Your task to perform on an android device: install app "Messages" Image 0: 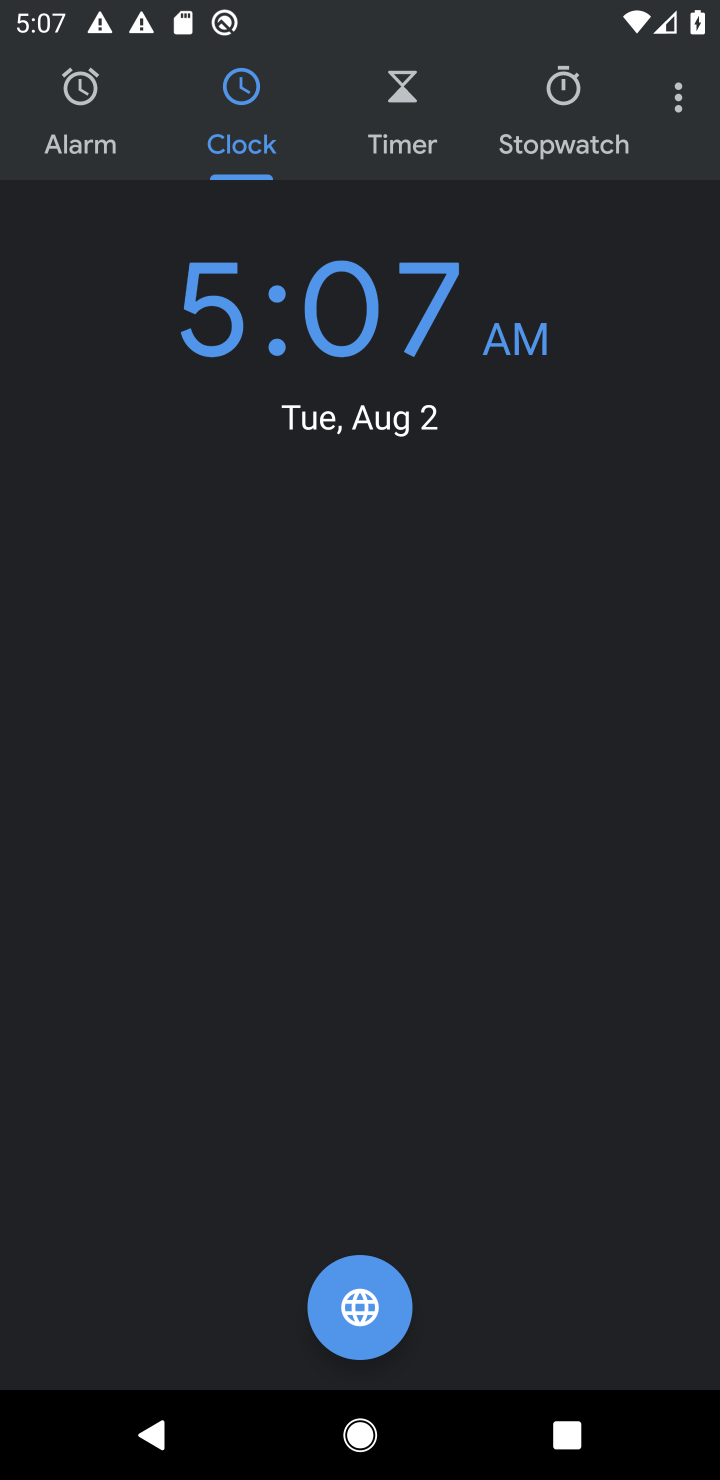
Step 0: press home button
Your task to perform on an android device: install app "Messages" Image 1: 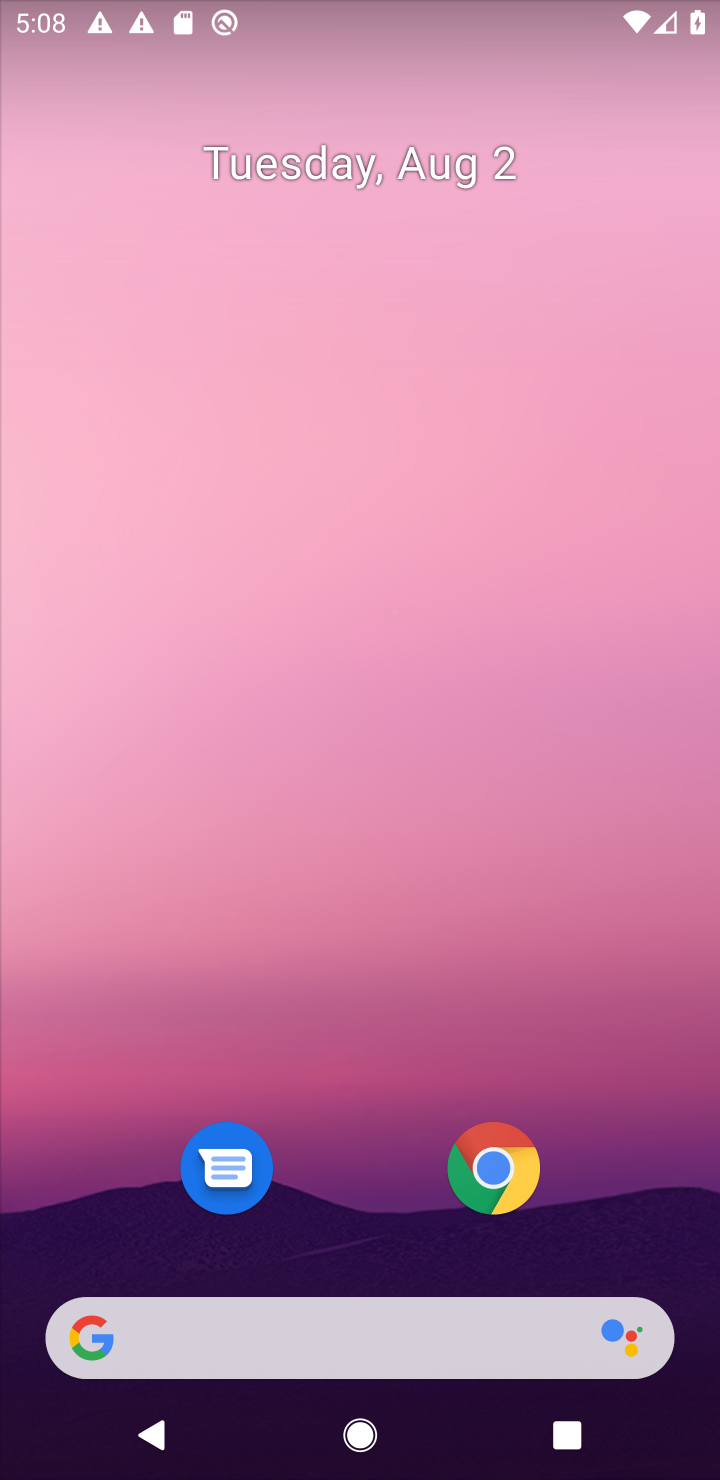
Step 1: drag from (334, 1172) to (215, 52)
Your task to perform on an android device: install app "Messages" Image 2: 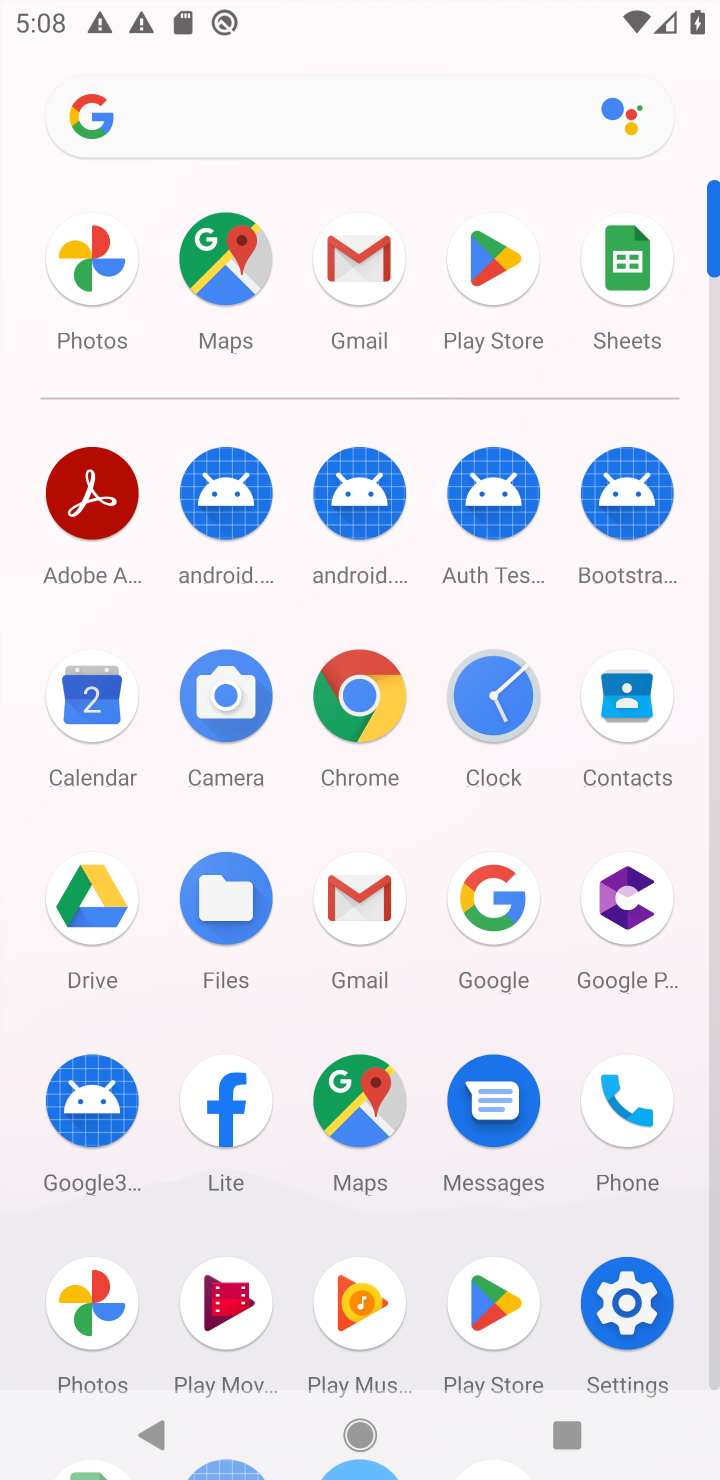
Step 2: click (500, 341)
Your task to perform on an android device: install app "Messages" Image 3: 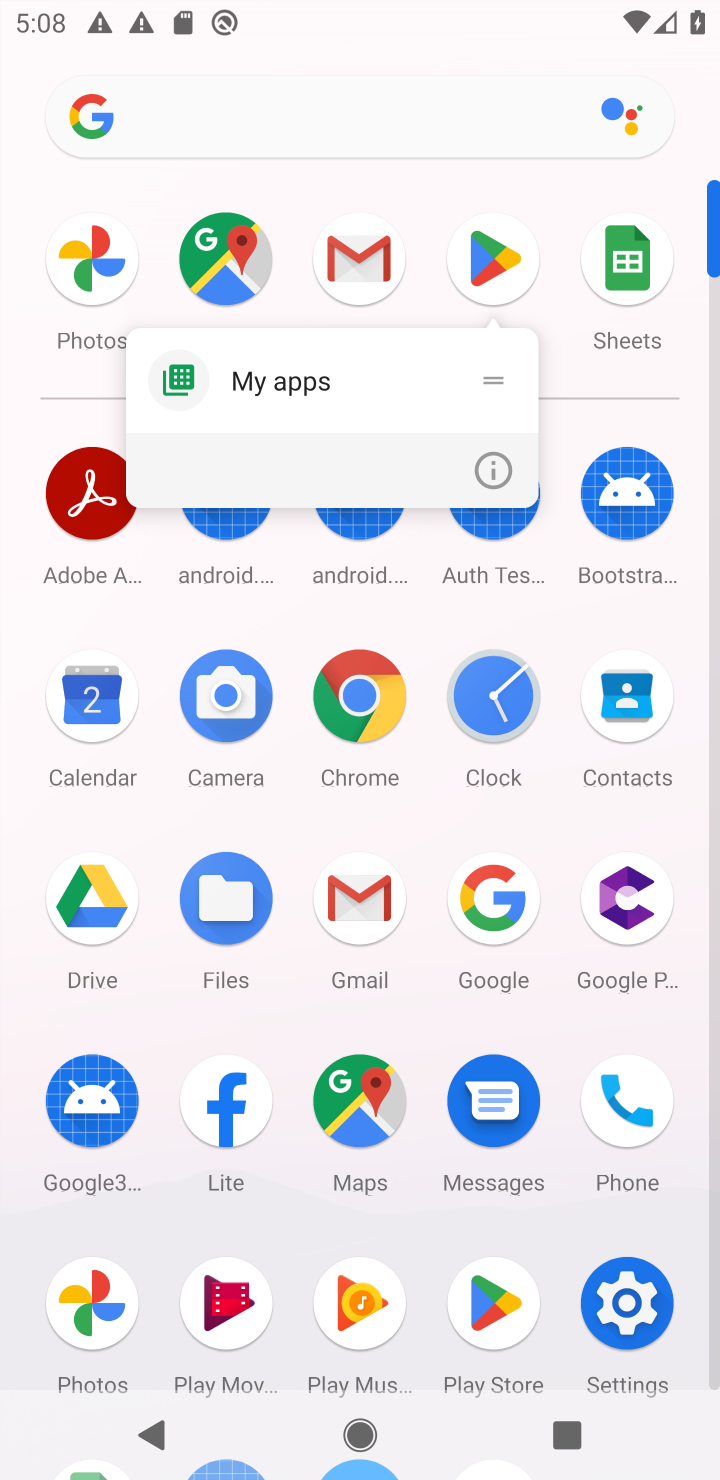
Step 3: click (495, 251)
Your task to perform on an android device: install app "Messages" Image 4: 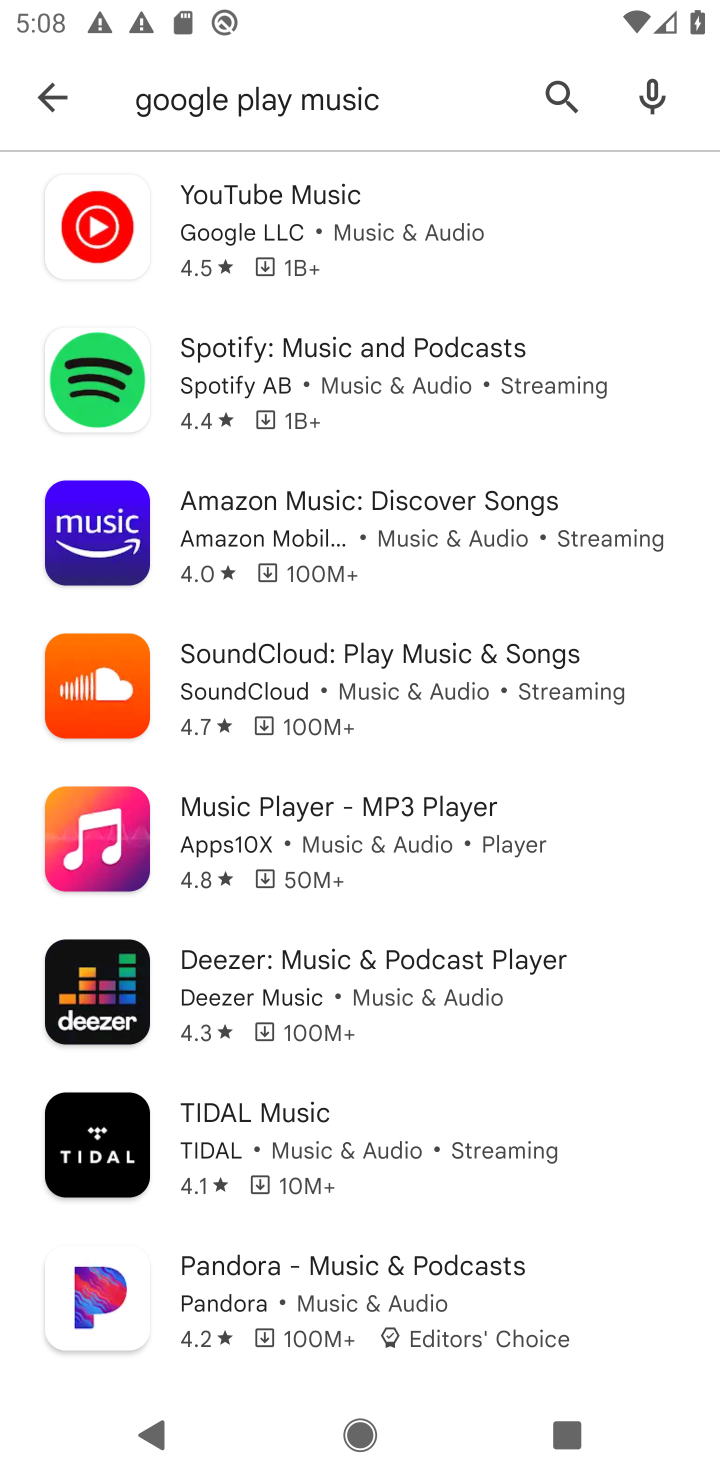
Step 4: click (336, 95)
Your task to perform on an android device: install app "Messages" Image 5: 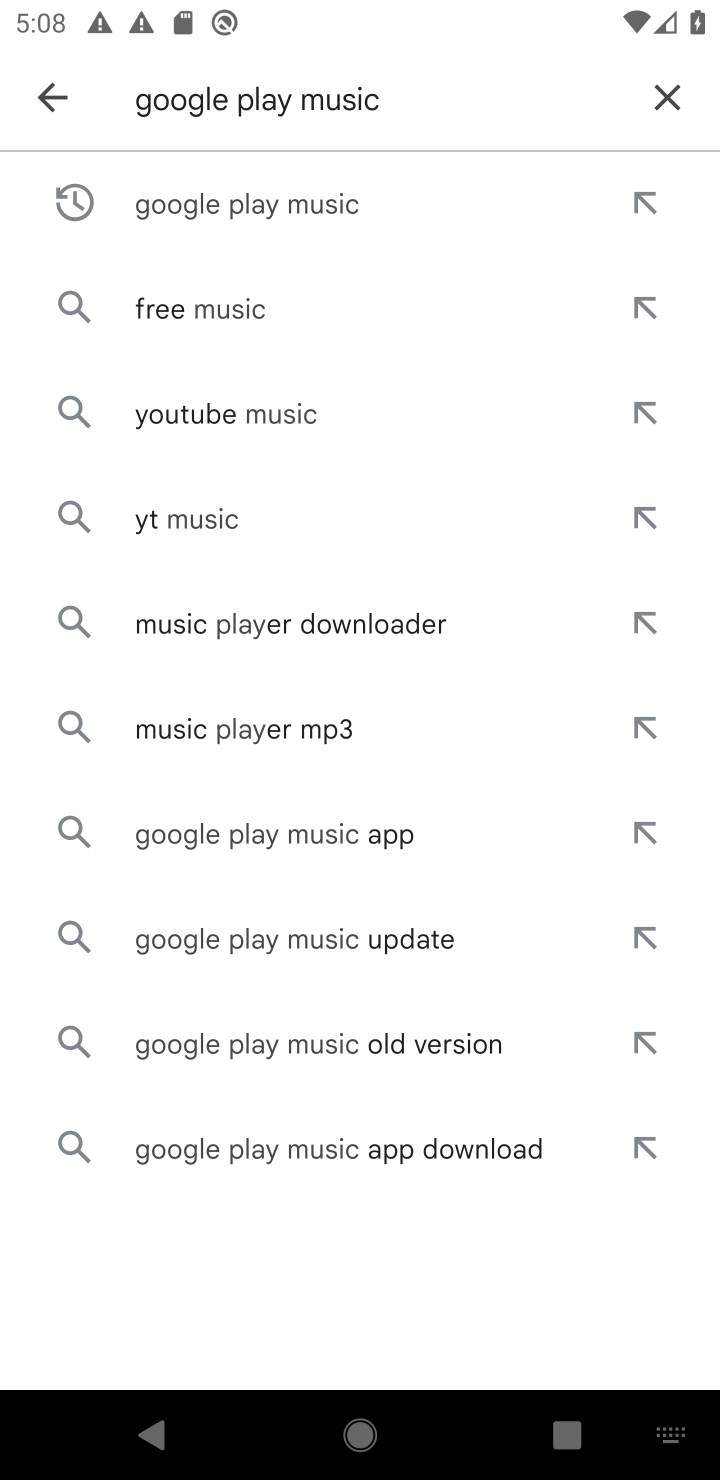
Step 5: click (642, 82)
Your task to perform on an android device: install app "Messages" Image 6: 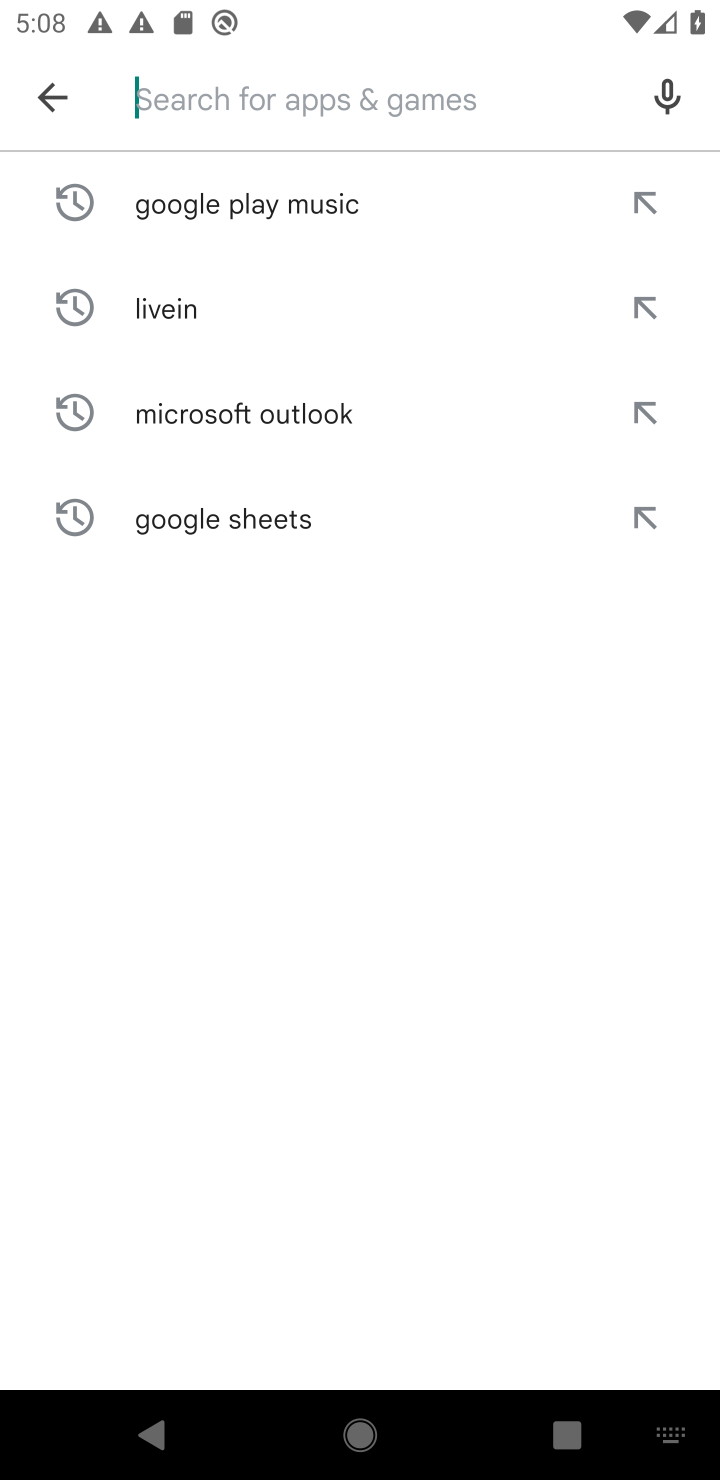
Step 6: type "messages"
Your task to perform on an android device: install app "Messages" Image 7: 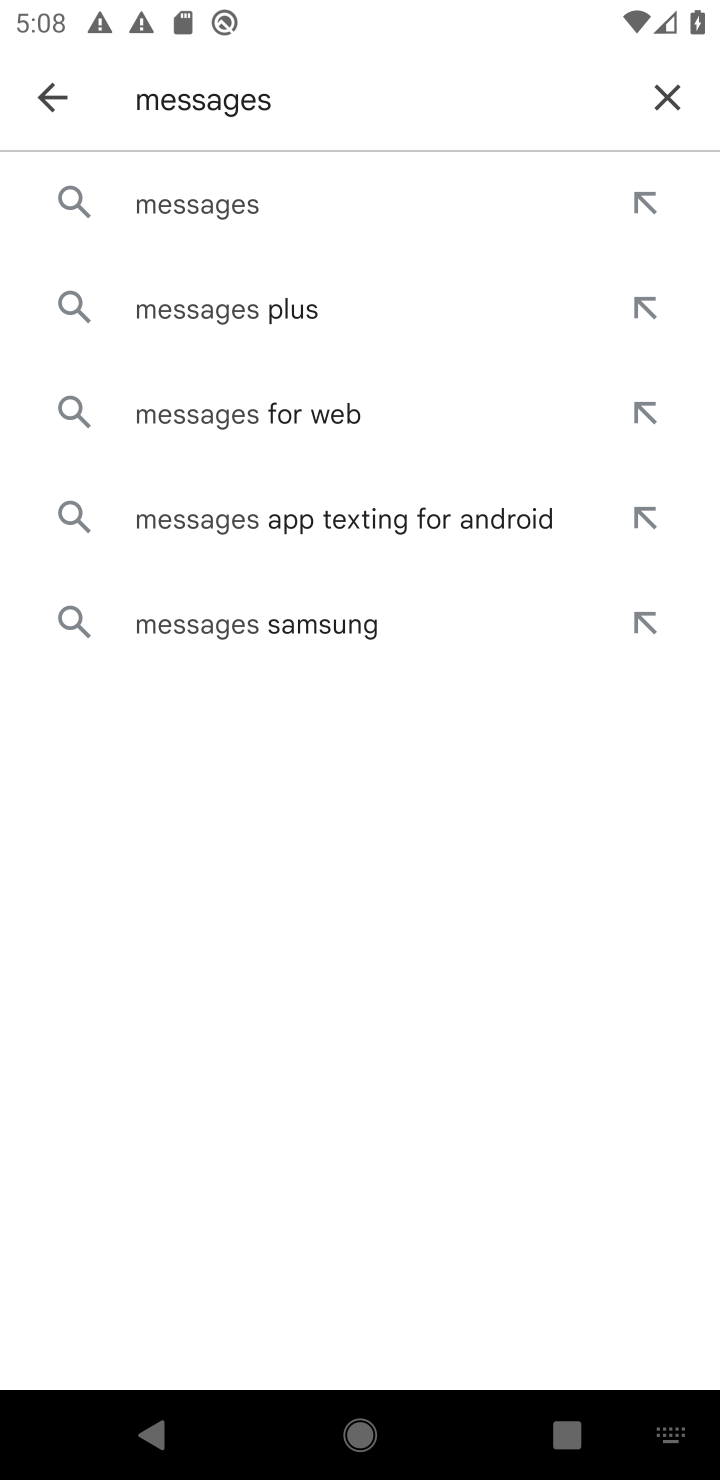
Step 7: click (239, 220)
Your task to perform on an android device: install app "Messages" Image 8: 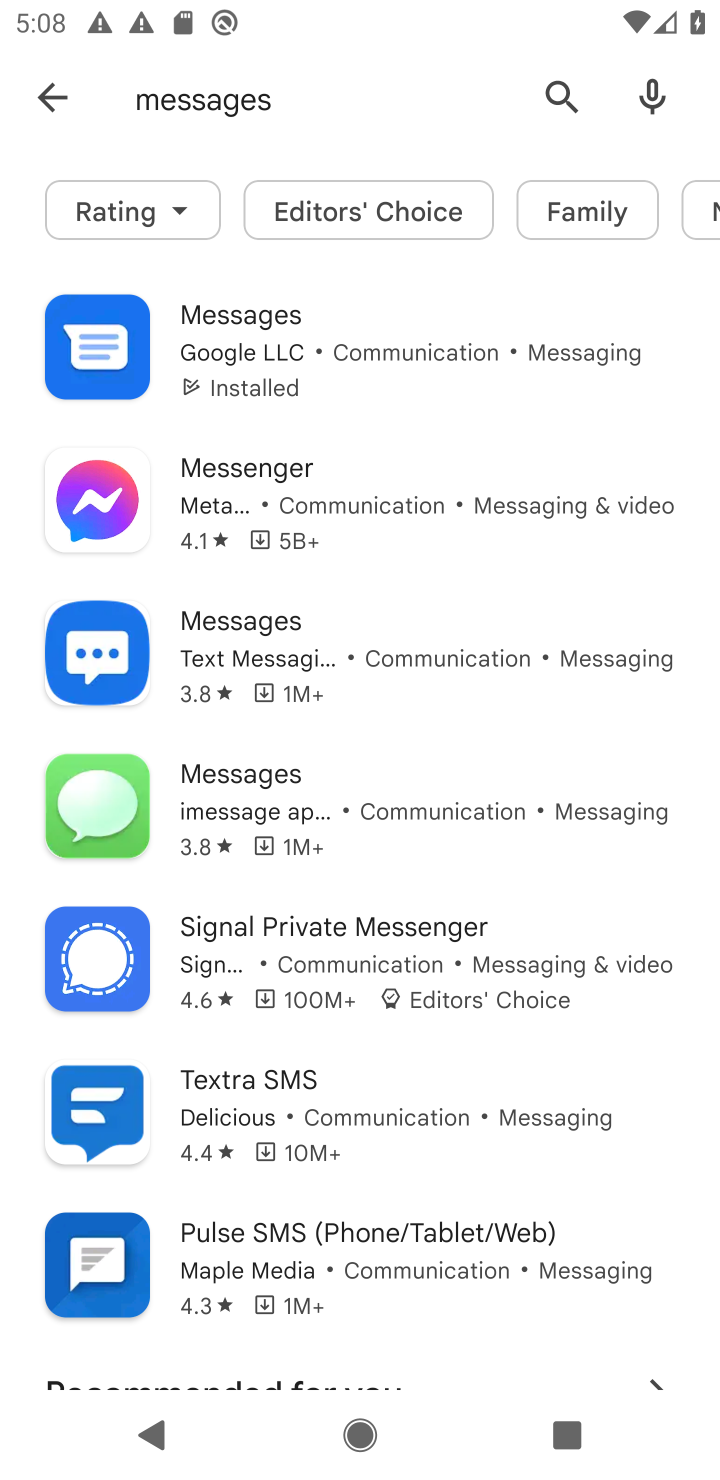
Step 8: click (303, 370)
Your task to perform on an android device: install app "Messages" Image 9: 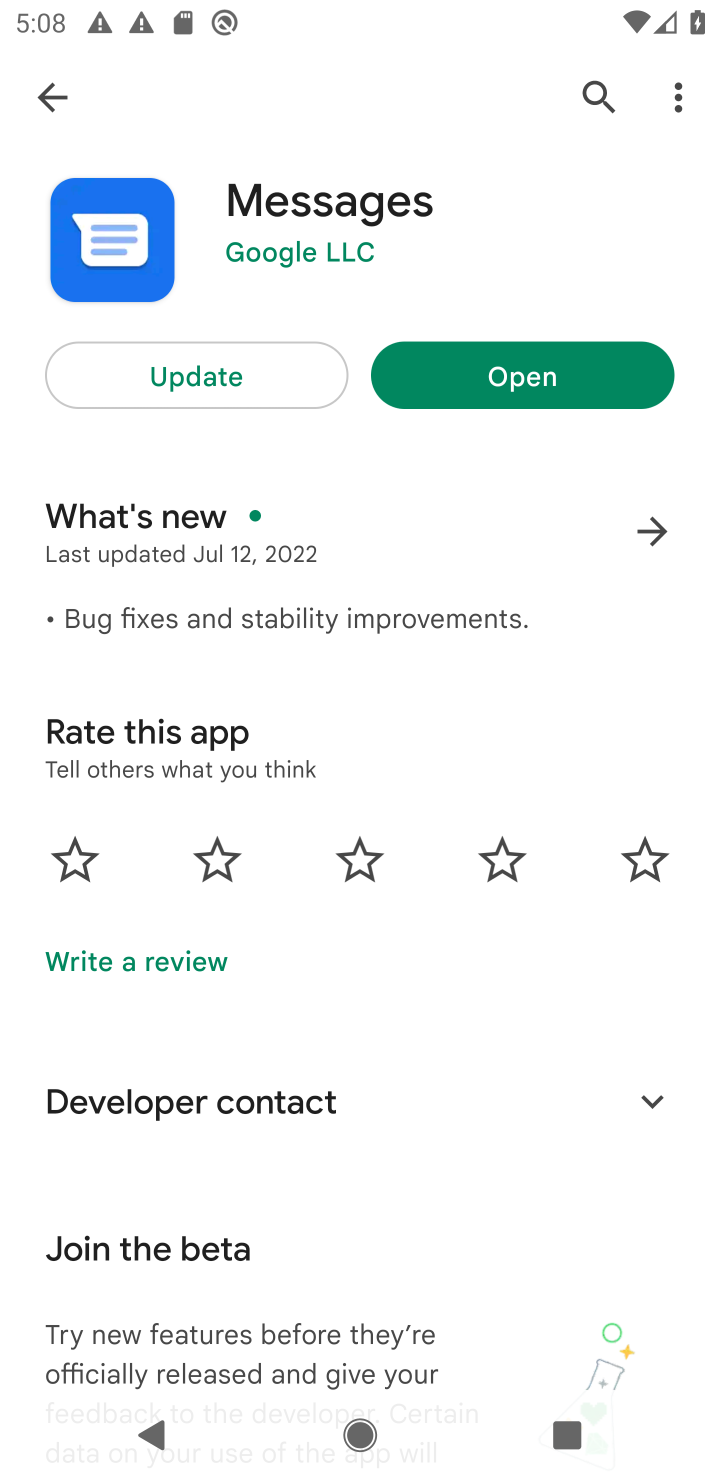
Step 9: task complete